Your task to perform on an android device: Search for "dell xps" on walmart.com, select the first entry, and add it to the cart. Image 0: 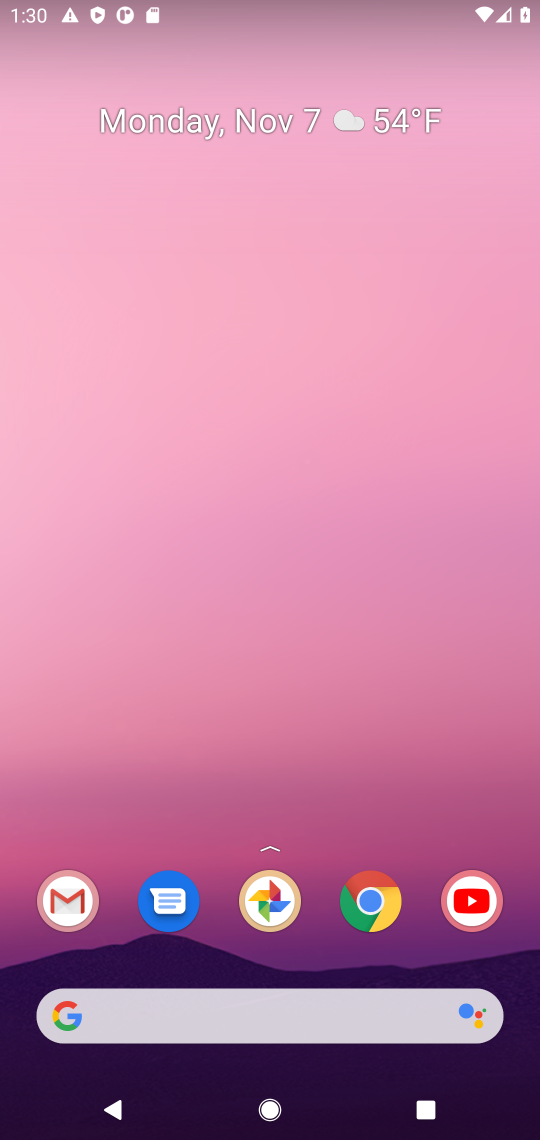
Step 0: click (367, 905)
Your task to perform on an android device: Search for "dell xps" on walmart.com, select the first entry, and add it to the cart. Image 1: 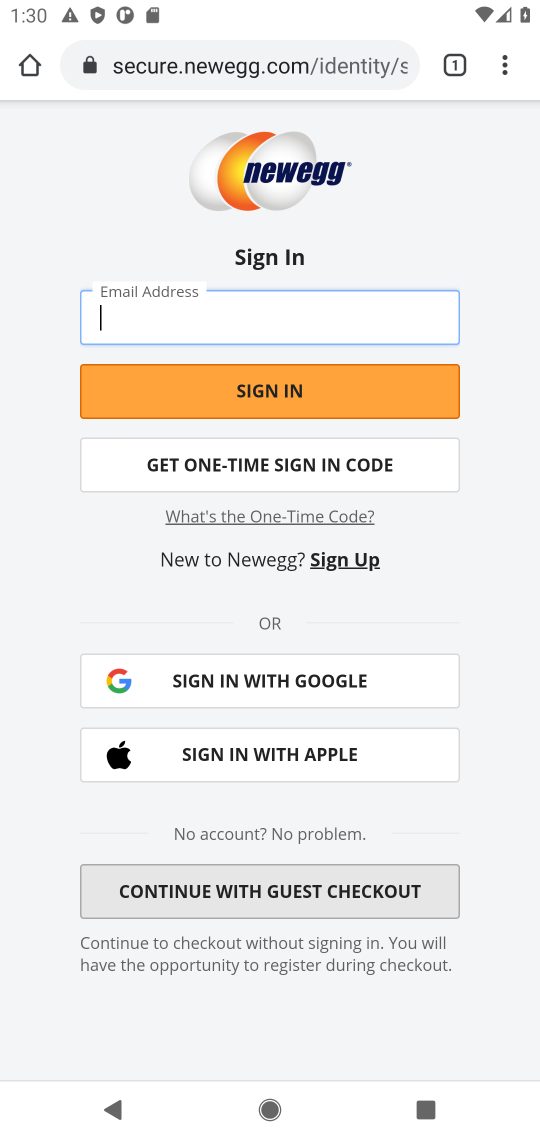
Step 1: click (262, 71)
Your task to perform on an android device: Search for "dell xps" on walmart.com, select the first entry, and add it to the cart. Image 2: 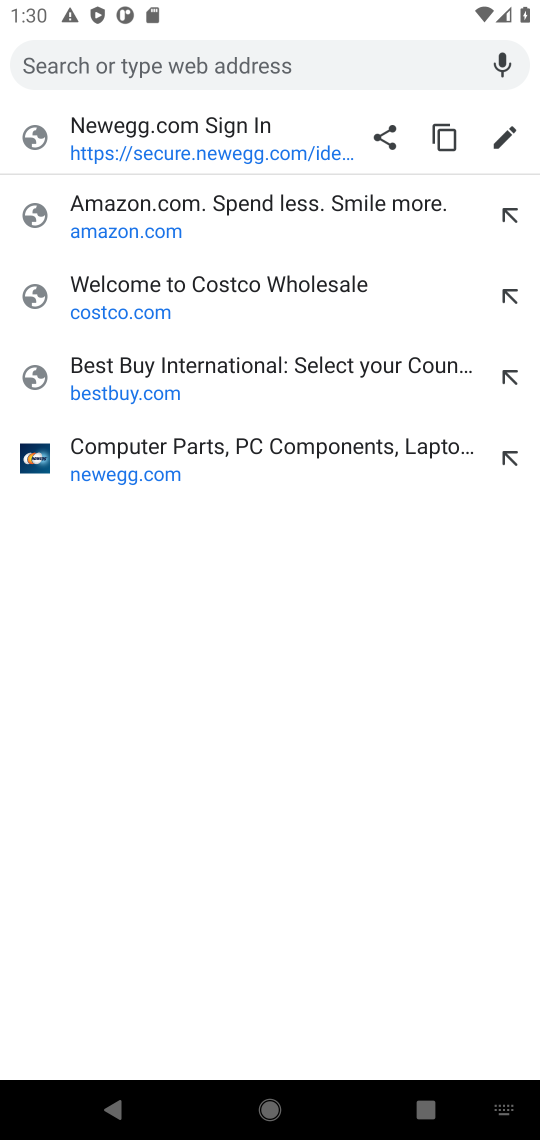
Step 2: type "walmart.com"
Your task to perform on an android device: Search for "dell xps" on walmart.com, select the first entry, and add it to the cart. Image 3: 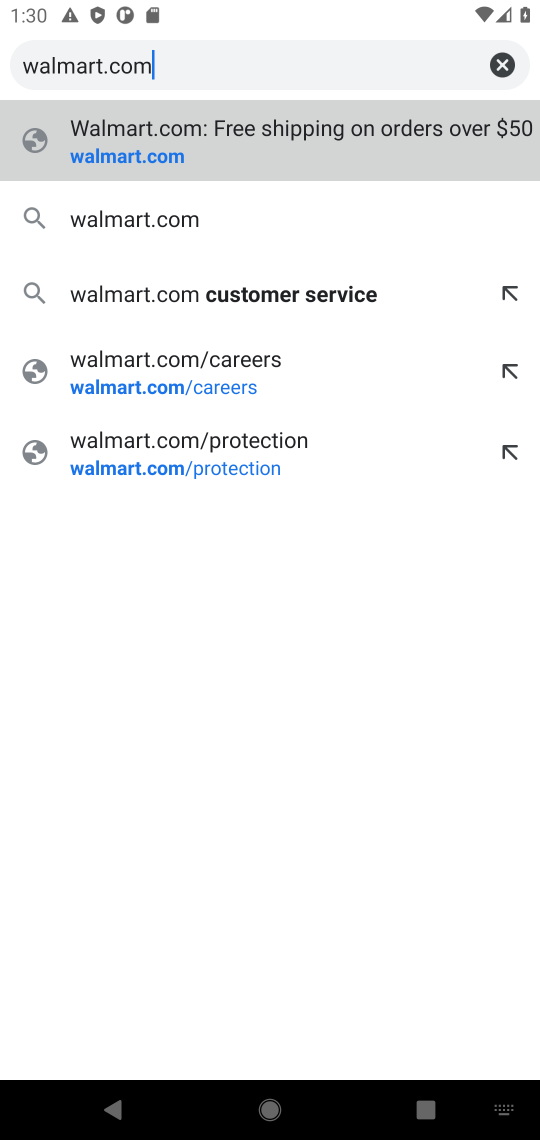
Step 3: click (161, 160)
Your task to perform on an android device: Search for "dell xps" on walmart.com, select the first entry, and add it to the cart. Image 4: 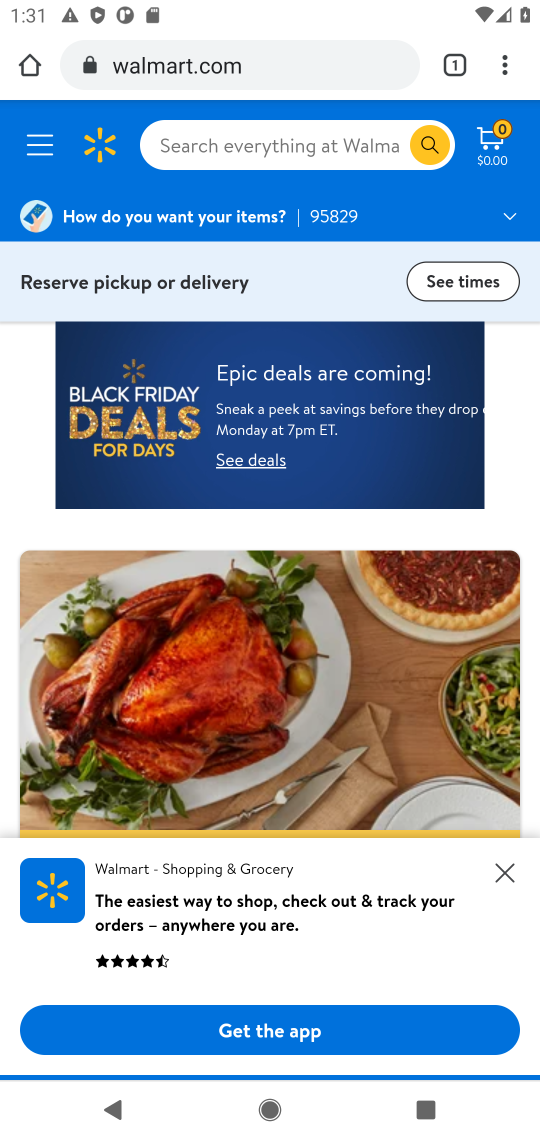
Step 4: click (239, 145)
Your task to perform on an android device: Search for "dell xps" on walmart.com, select the first entry, and add it to the cart. Image 5: 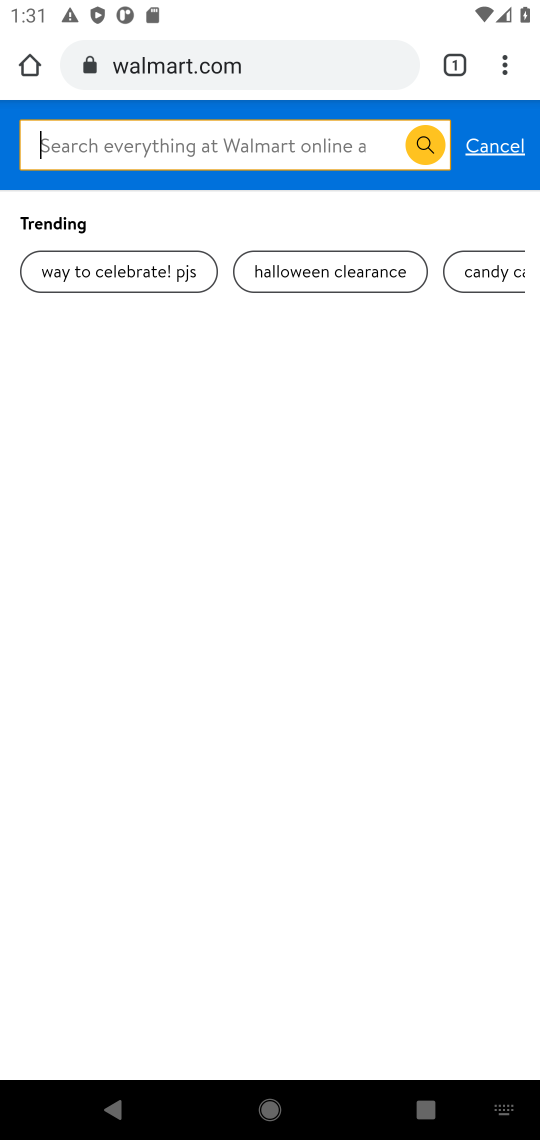
Step 5: type "dell xps"
Your task to perform on an android device: Search for "dell xps" on walmart.com, select the first entry, and add it to the cart. Image 6: 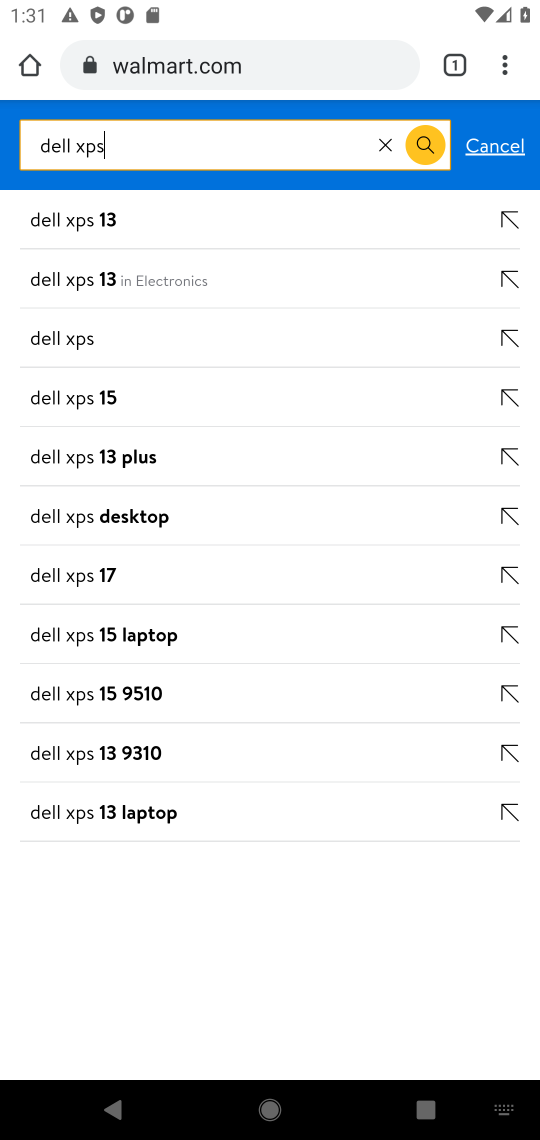
Step 6: click (57, 341)
Your task to perform on an android device: Search for "dell xps" on walmart.com, select the first entry, and add it to the cart. Image 7: 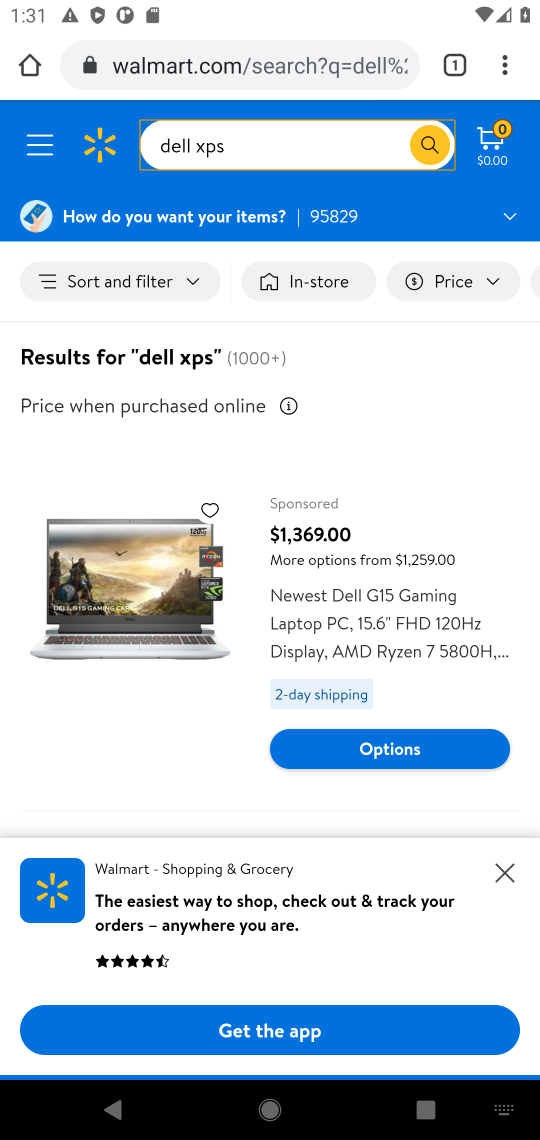
Step 7: task complete